Your task to perform on an android device: Go to sound settings Image 0: 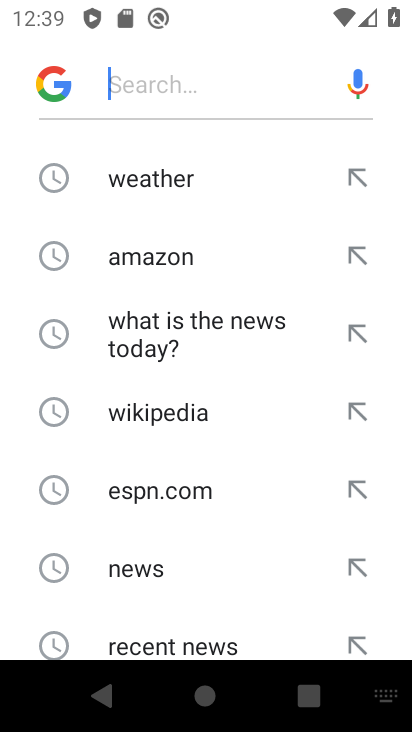
Step 0: press home button
Your task to perform on an android device: Go to sound settings Image 1: 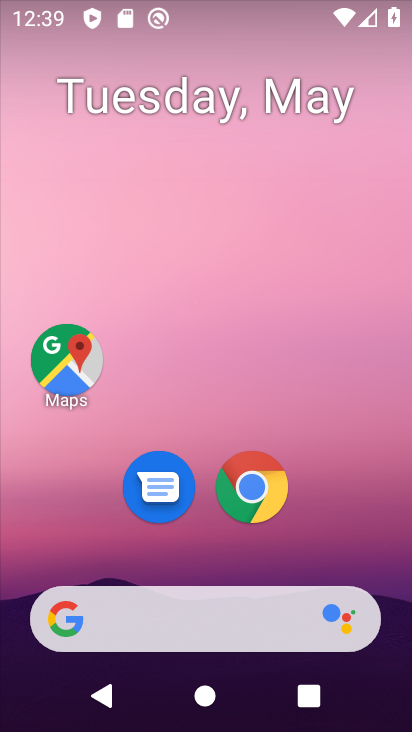
Step 1: drag from (299, 552) to (309, 88)
Your task to perform on an android device: Go to sound settings Image 2: 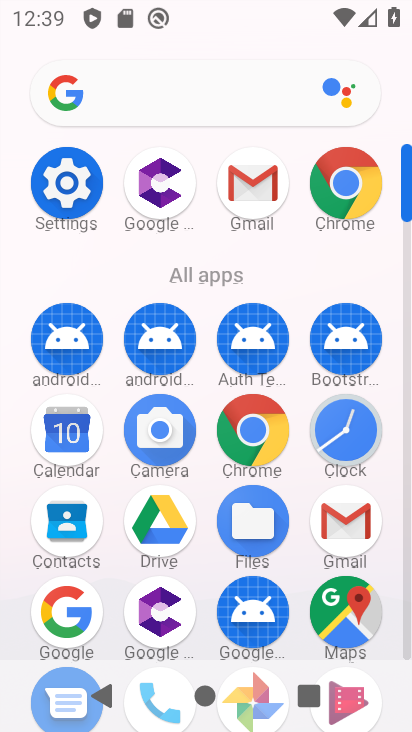
Step 2: click (78, 193)
Your task to perform on an android device: Go to sound settings Image 3: 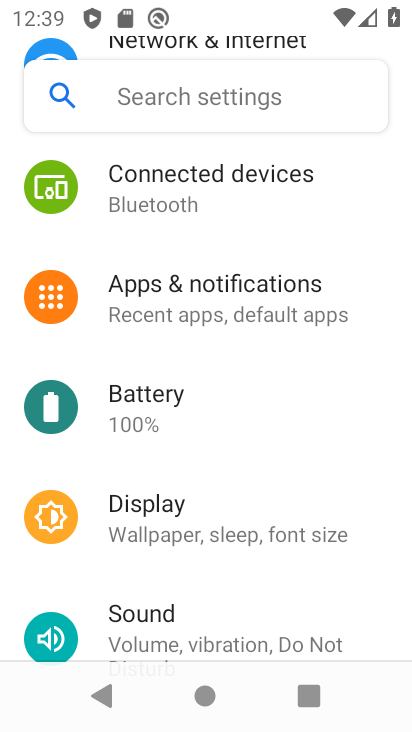
Step 3: click (204, 620)
Your task to perform on an android device: Go to sound settings Image 4: 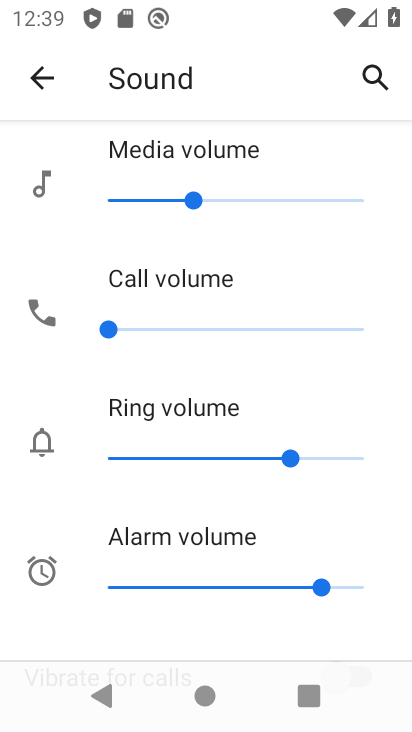
Step 4: task complete